Your task to perform on an android device: Add lg ultragear to the cart on target.com, then select checkout. Image 0: 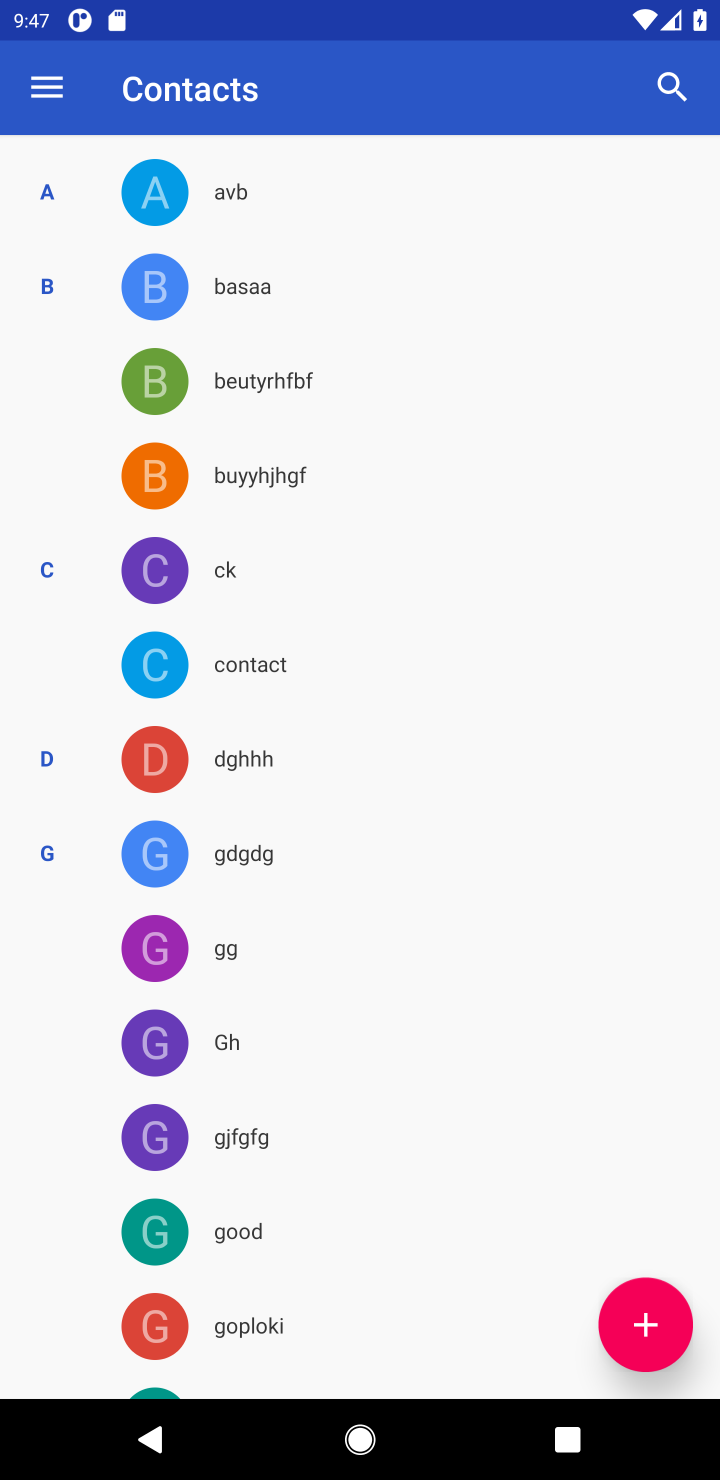
Step 0: press home button
Your task to perform on an android device: Add lg ultragear to the cart on target.com, then select checkout. Image 1: 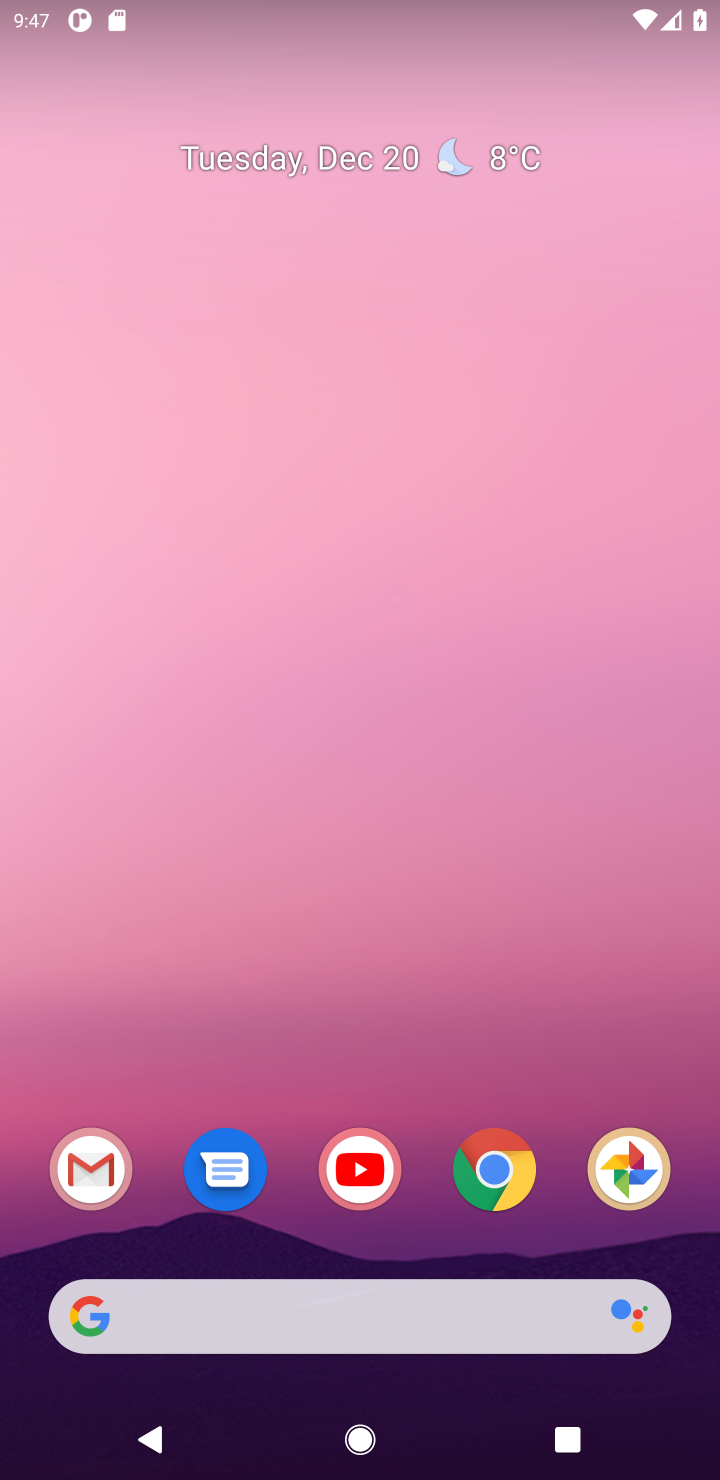
Step 1: click (529, 1189)
Your task to perform on an android device: Add lg ultragear to the cart on target.com, then select checkout. Image 2: 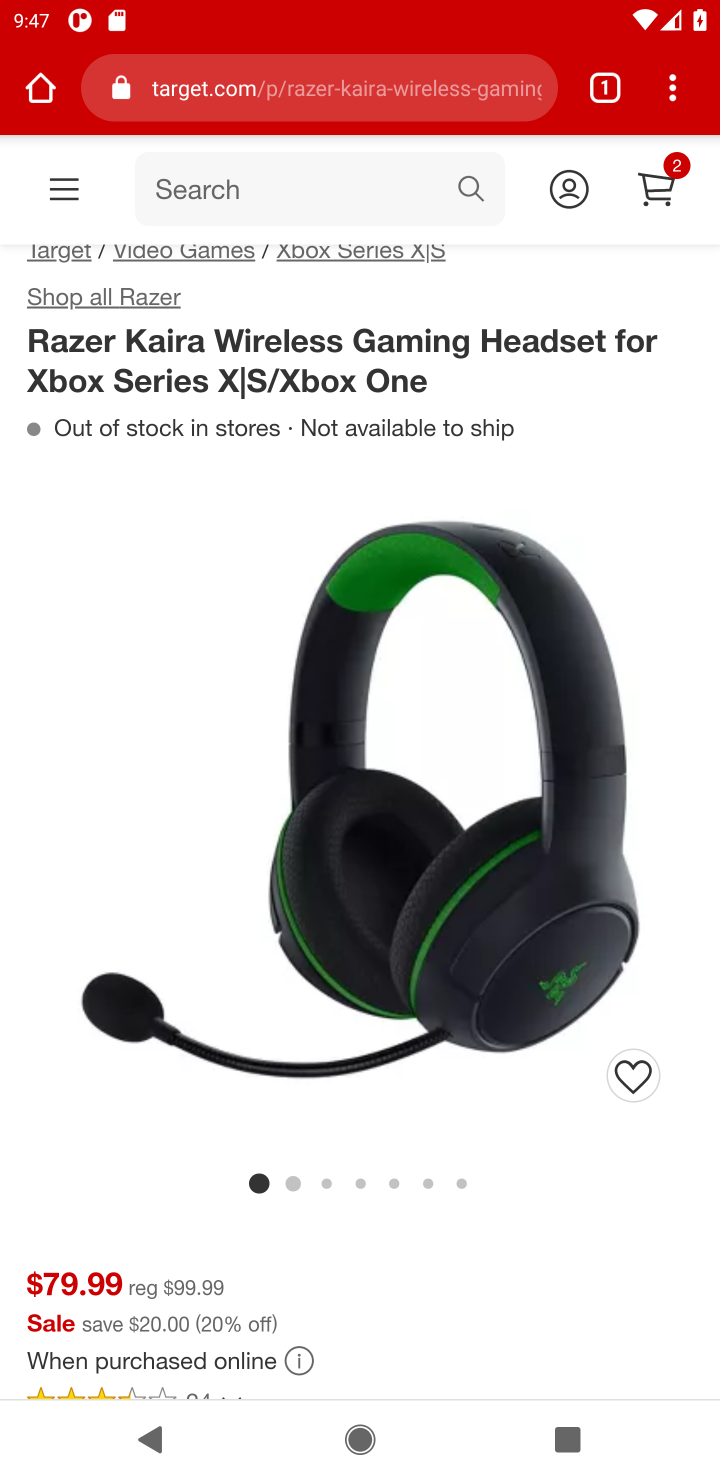
Step 2: task complete